Your task to perform on an android device: Open notification settings Image 0: 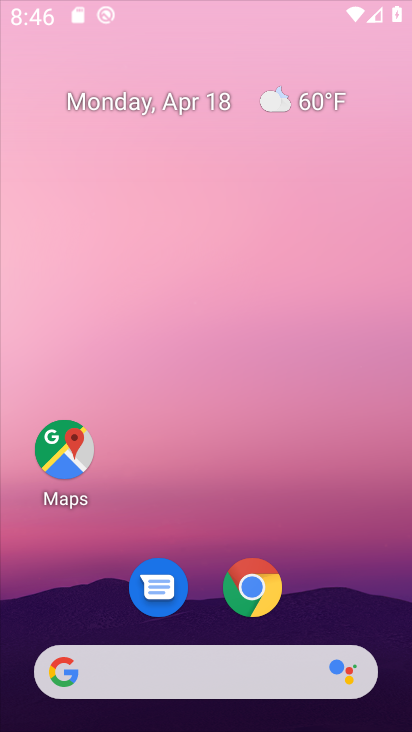
Step 0: click (232, 241)
Your task to perform on an android device: Open notification settings Image 1: 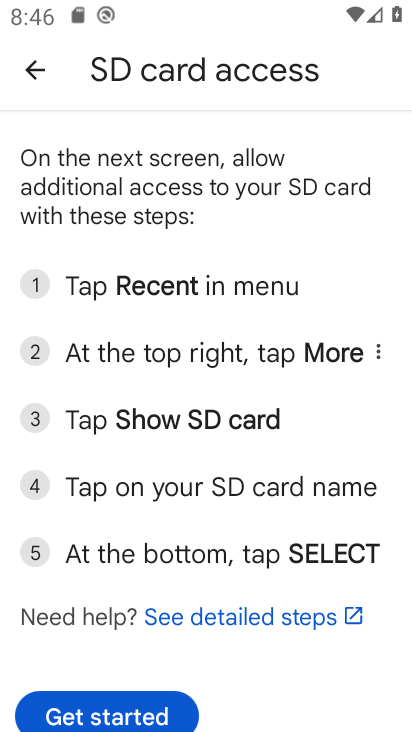
Step 1: press home button
Your task to perform on an android device: Open notification settings Image 2: 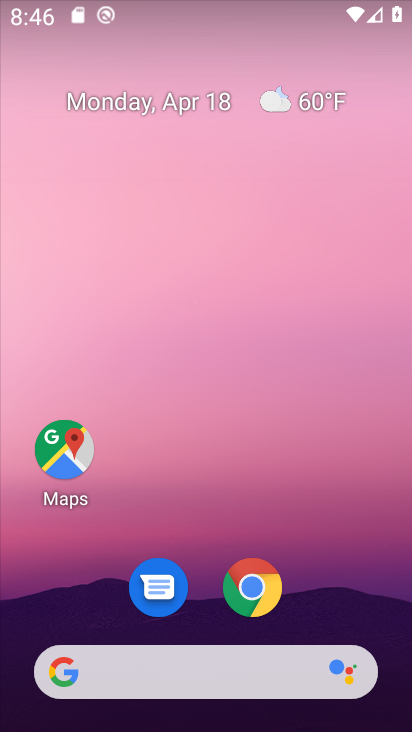
Step 2: drag from (354, 604) to (177, 207)
Your task to perform on an android device: Open notification settings Image 3: 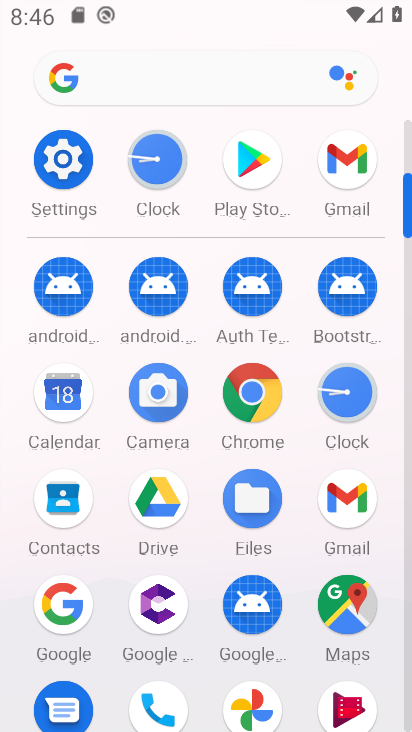
Step 3: click (44, 204)
Your task to perform on an android device: Open notification settings Image 4: 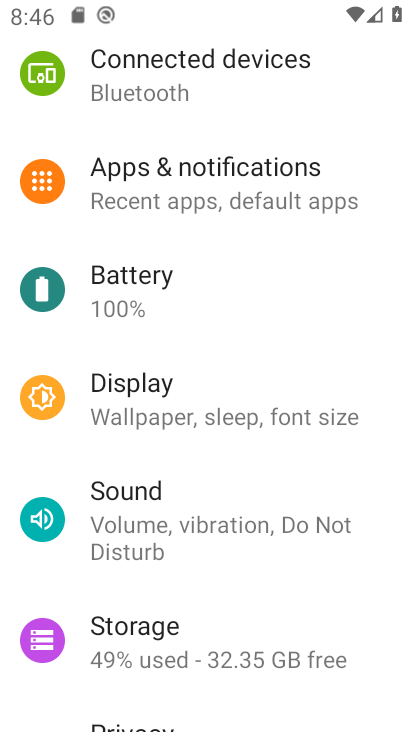
Step 4: click (117, 227)
Your task to perform on an android device: Open notification settings Image 5: 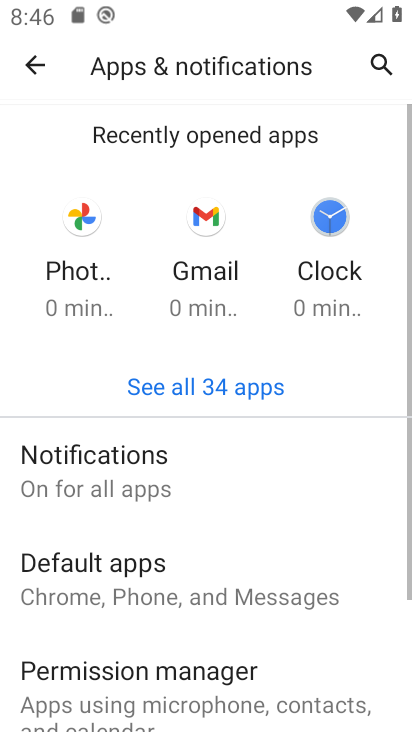
Step 5: task complete